Your task to perform on an android device: Go to sound settings Image 0: 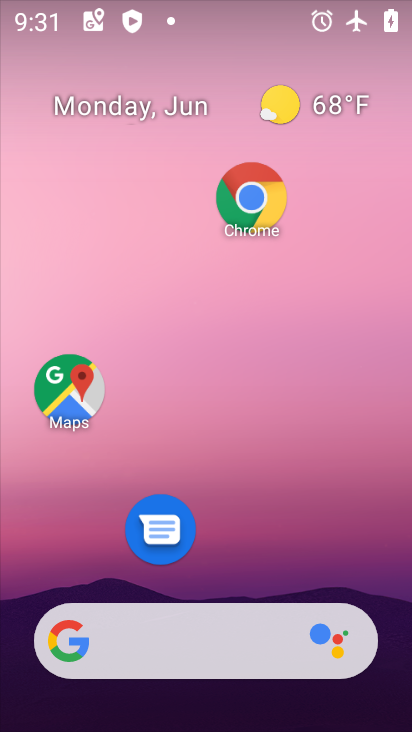
Step 0: drag from (238, 589) to (237, 161)
Your task to perform on an android device: Go to sound settings Image 1: 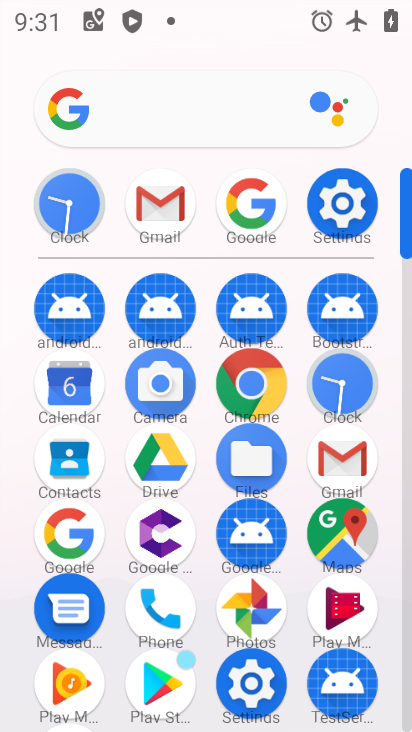
Step 1: click (311, 204)
Your task to perform on an android device: Go to sound settings Image 2: 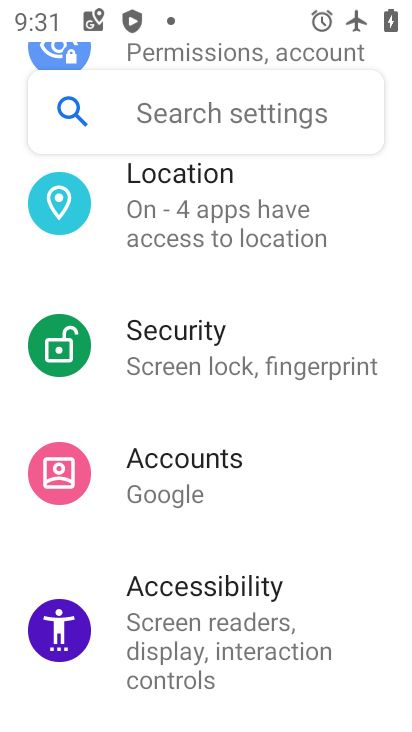
Step 2: drag from (237, 282) to (230, 589)
Your task to perform on an android device: Go to sound settings Image 3: 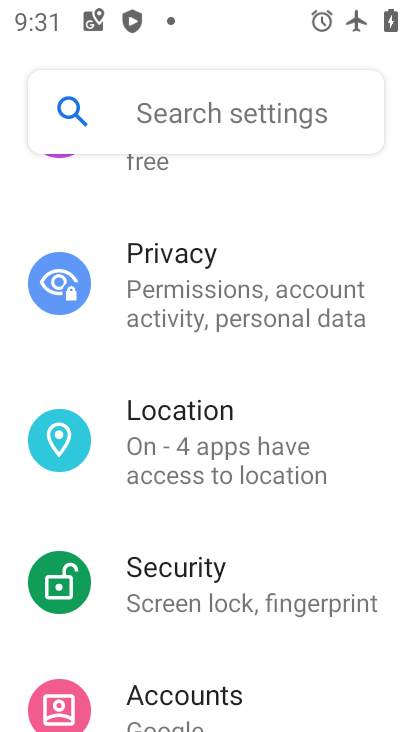
Step 3: drag from (242, 290) to (262, 564)
Your task to perform on an android device: Go to sound settings Image 4: 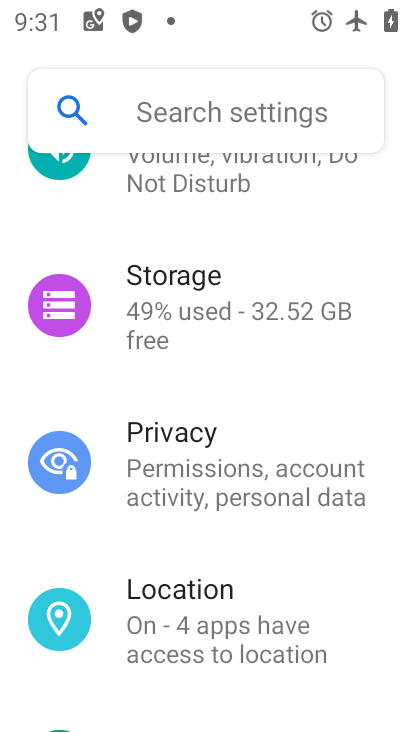
Step 4: drag from (245, 255) to (248, 536)
Your task to perform on an android device: Go to sound settings Image 5: 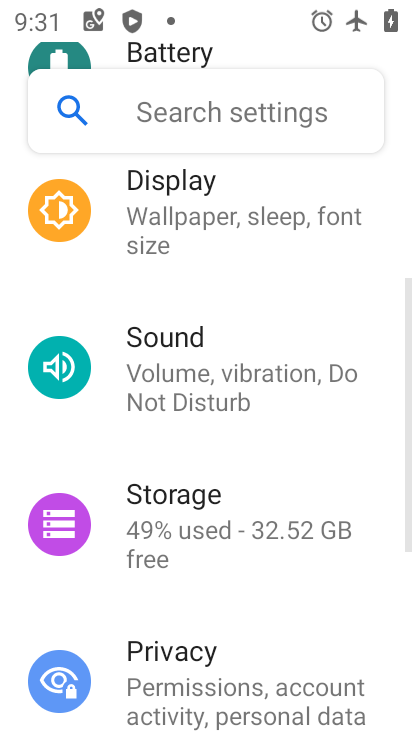
Step 5: click (241, 354)
Your task to perform on an android device: Go to sound settings Image 6: 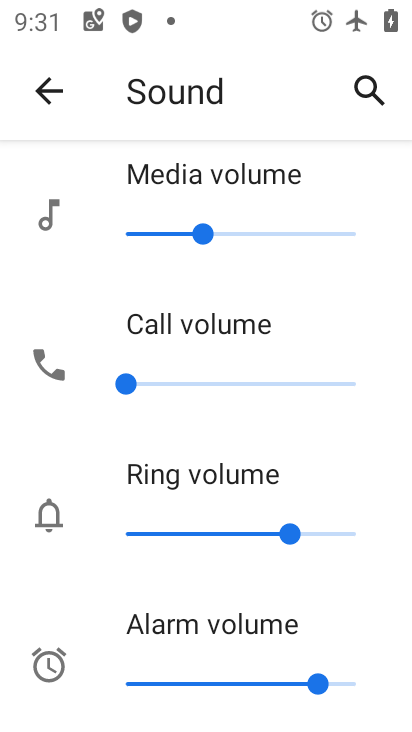
Step 6: task complete